Your task to perform on an android device: turn on wifi Image 0: 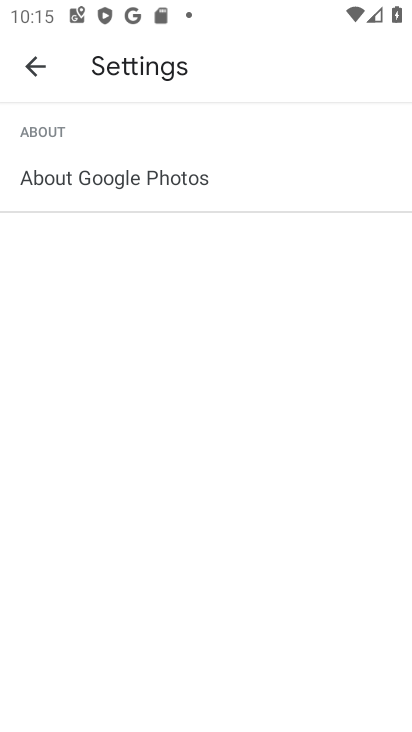
Step 0: press home button
Your task to perform on an android device: turn on wifi Image 1: 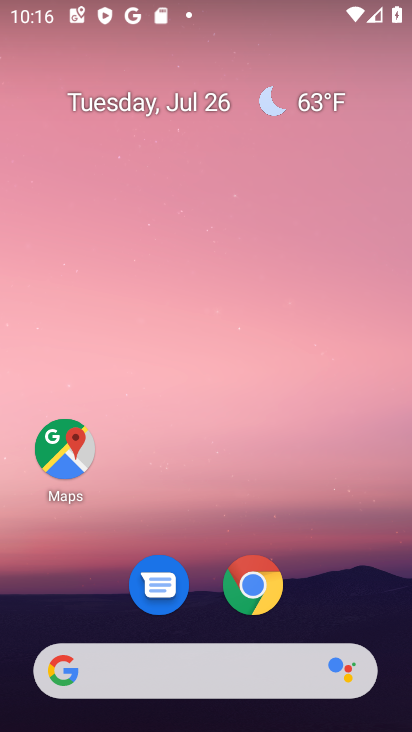
Step 1: drag from (199, 473) to (285, 17)
Your task to perform on an android device: turn on wifi Image 2: 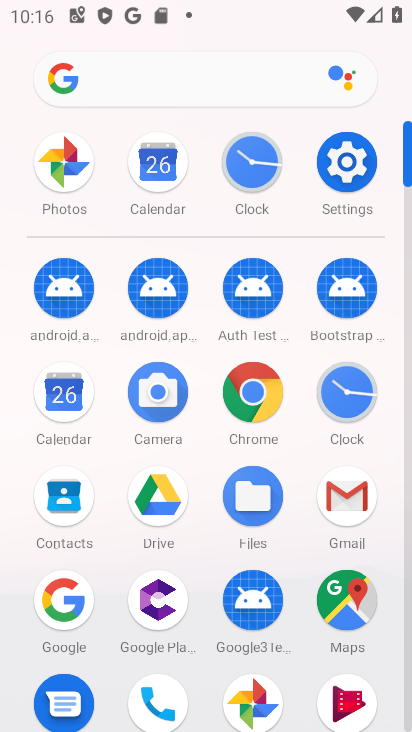
Step 2: click (353, 154)
Your task to perform on an android device: turn on wifi Image 3: 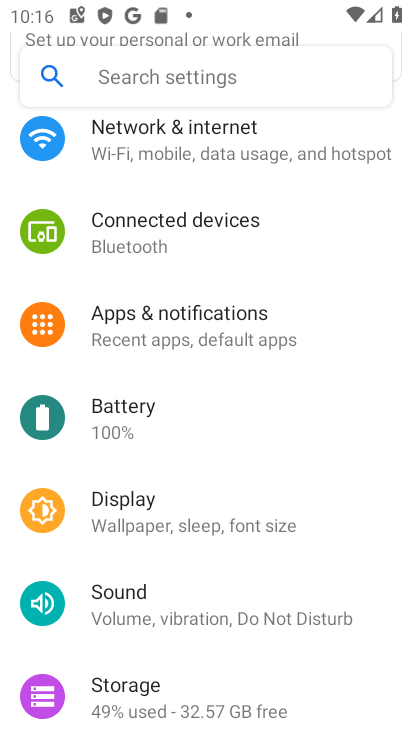
Step 3: click (272, 147)
Your task to perform on an android device: turn on wifi Image 4: 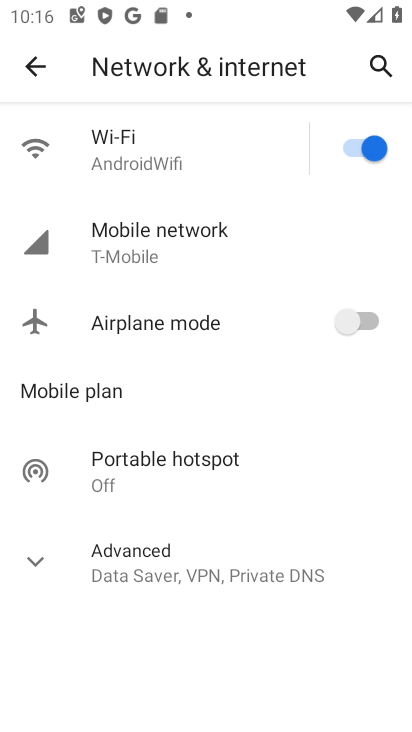
Step 4: task complete